Your task to perform on an android device: Open calendar and show me the second week of next month Image 0: 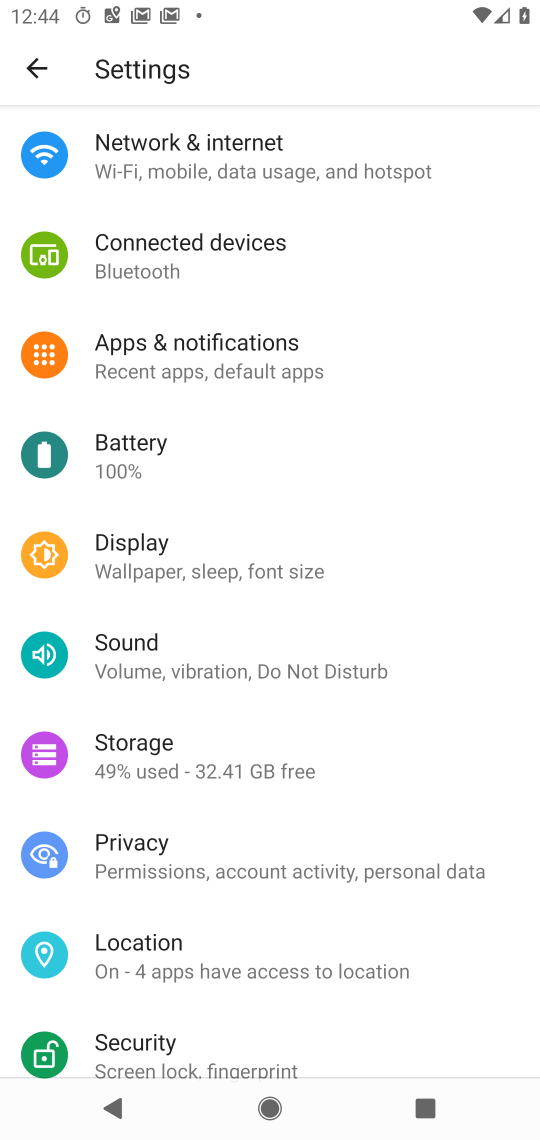
Step 0: press home button
Your task to perform on an android device: Open calendar and show me the second week of next month Image 1: 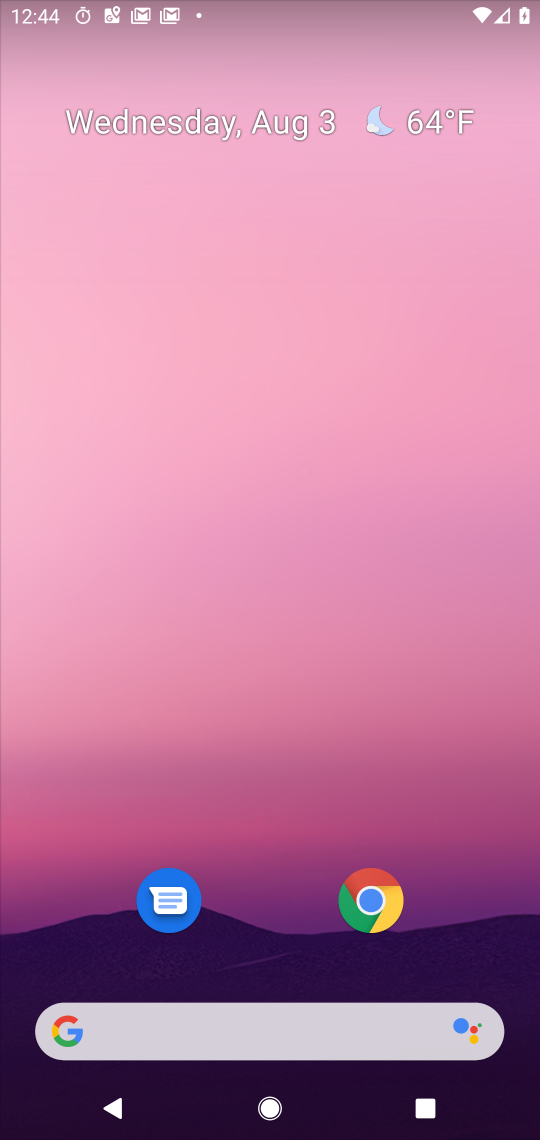
Step 1: drag from (297, 898) to (422, 169)
Your task to perform on an android device: Open calendar and show me the second week of next month Image 2: 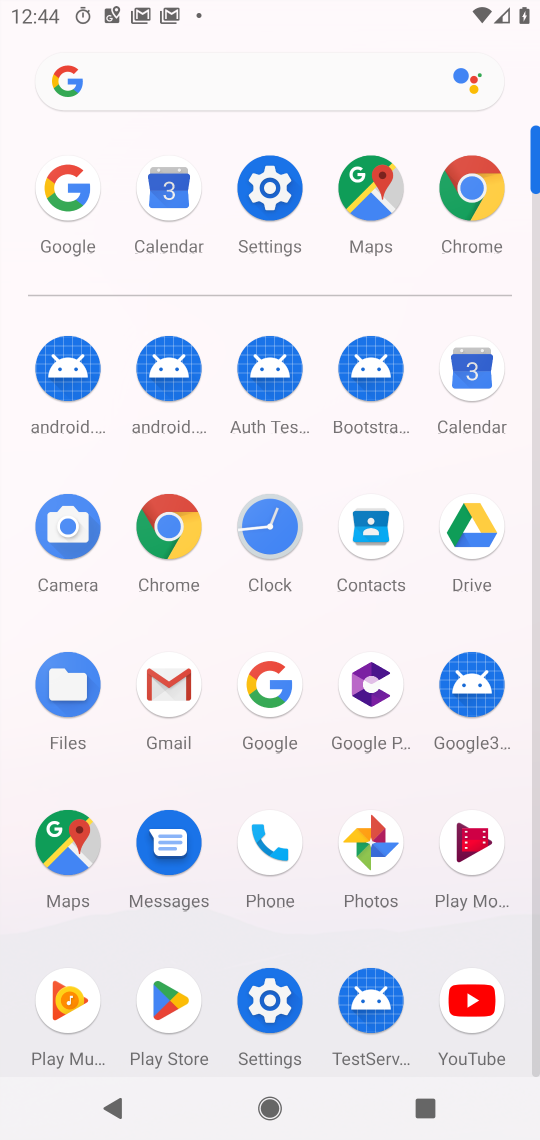
Step 2: click (457, 372)
Your task to perform on an android device: Open calendar and show me the second week of next month Image 3: 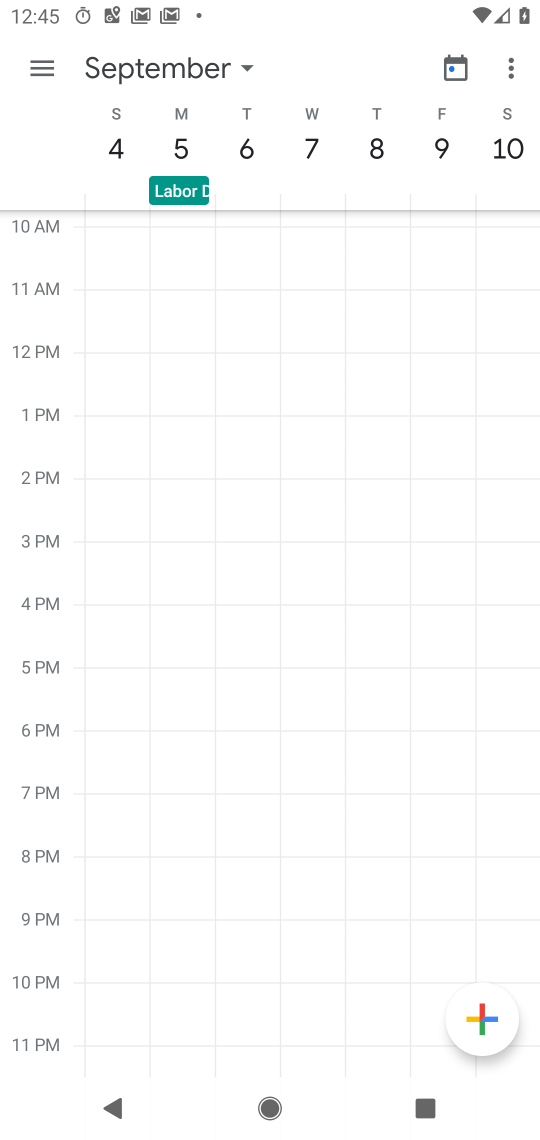
Step 3: click (167, 61)
Your task to perform on an android device: Open calendar and show me the second week of next month Image 4: 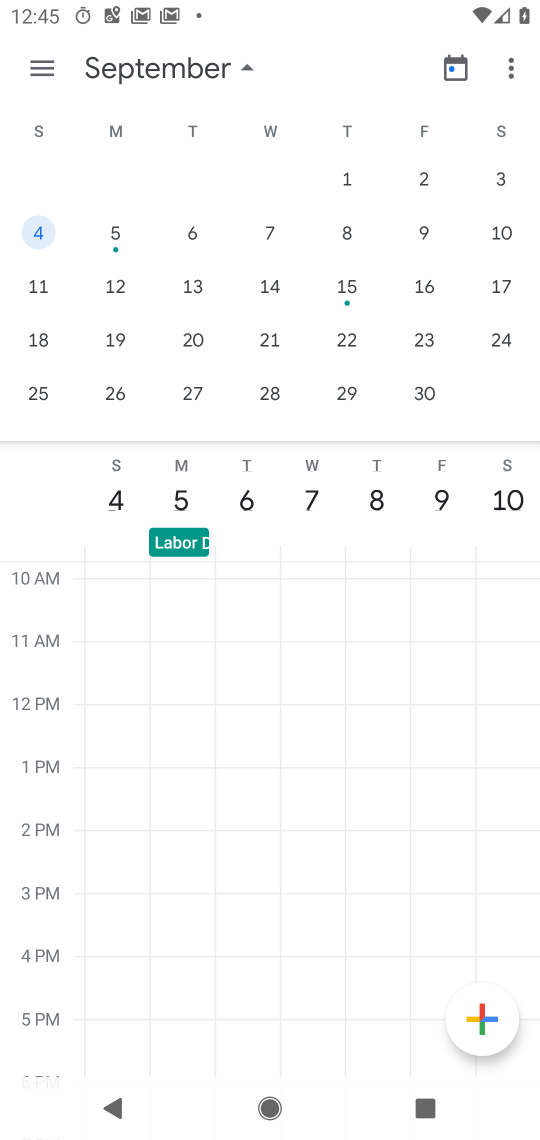
Step 4: click (204, 283)
Your task to perform on an android device: Open calendar and show me the second week of next month Image 5: 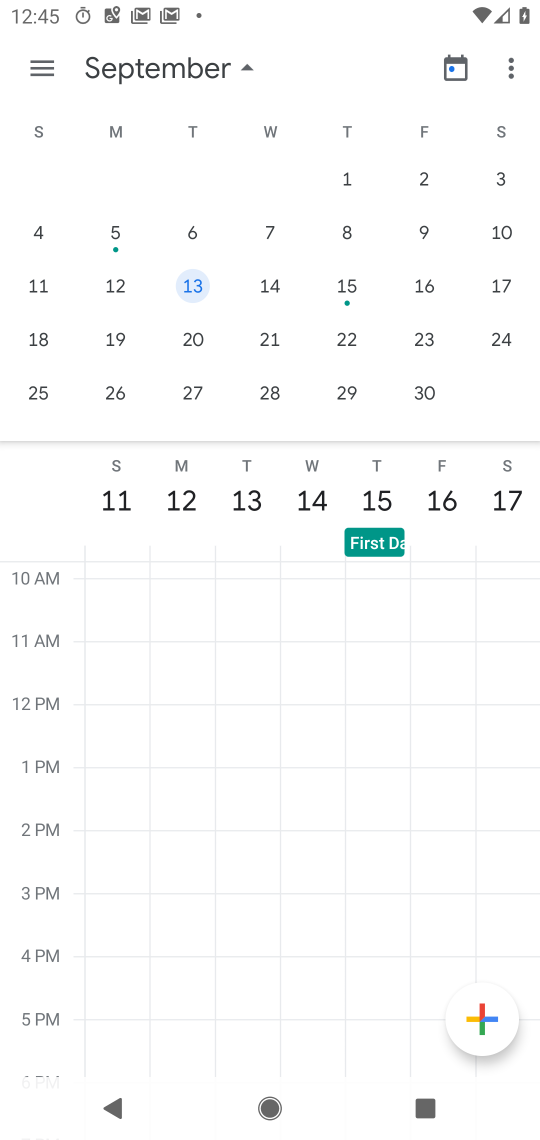
Step 5: task complete